Your task to perform on an android device: turn on wifi Image 0: 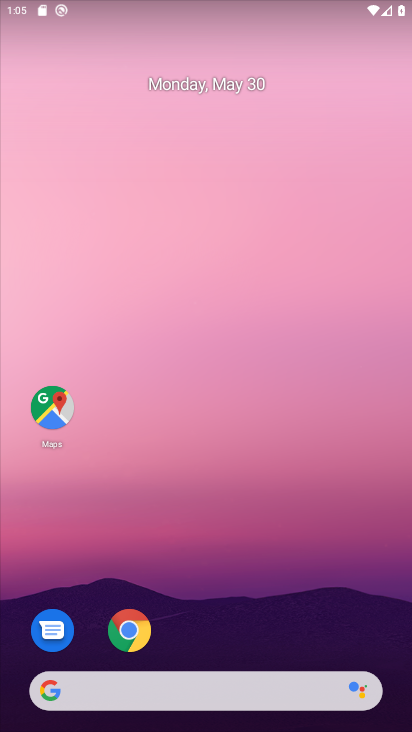
Step 0: press home button
Your task to perform on an android device: turn on wifi Image 1: 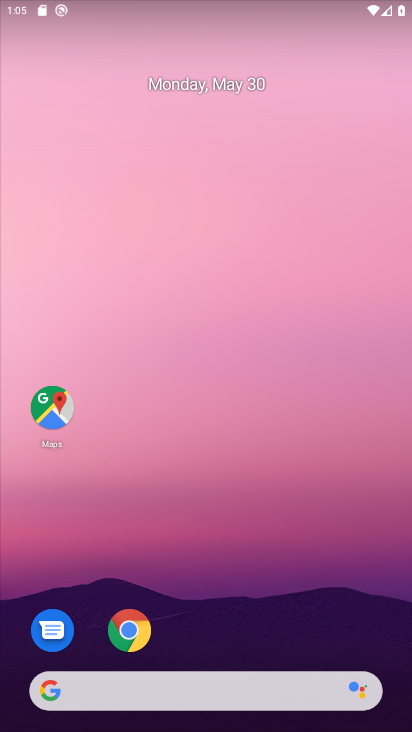
Step 1: drag from (192, 684) to (338, 160)
Your task to perform on an android device: turn on wifi Image 2: 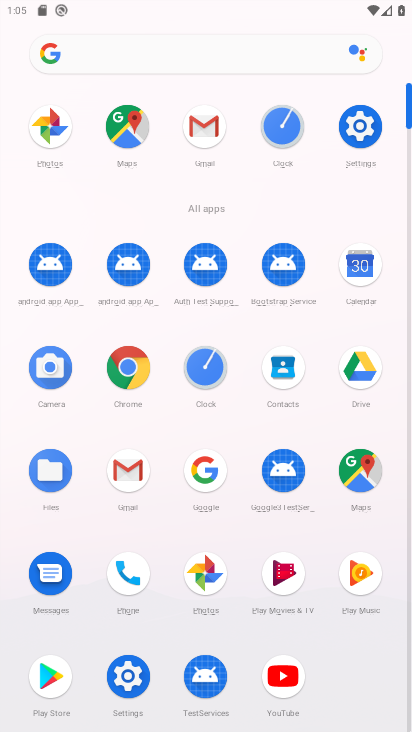
Step 2: click (361, 139)
Your task to perform on an android device: turn on wifi Image 3: 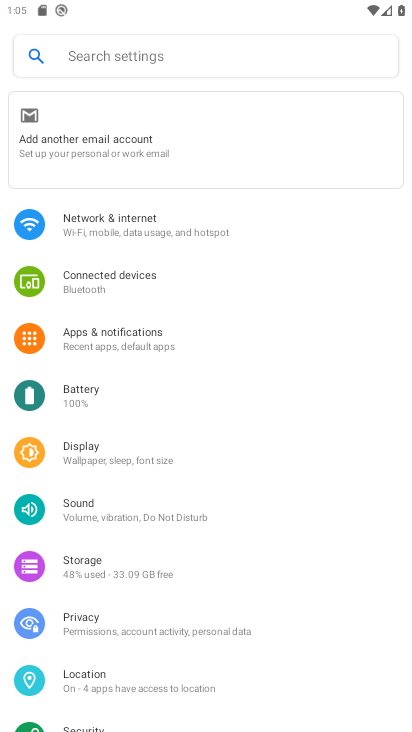
Step 3: click (134, 233)
Your task to perform on an android device: turn on wifi Image 4: 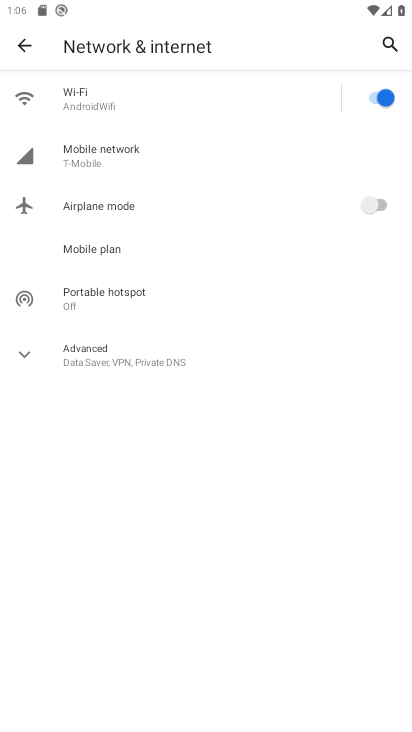
Step 4: task complete